Your task to perform on an android device: change alarm snooze length Image 0: 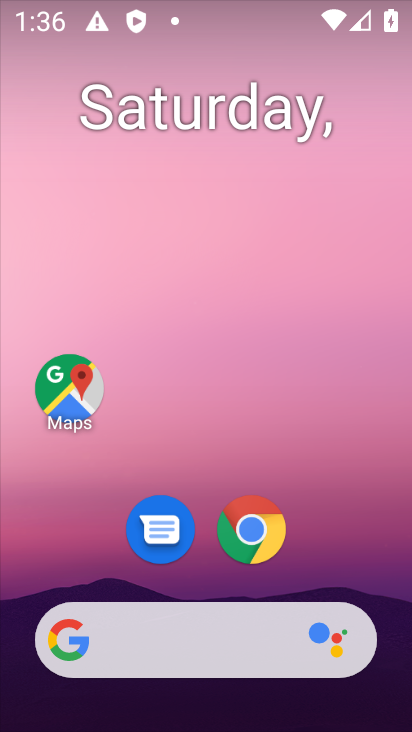
Step 0: drag from (369, 551) to (264, 118)
Your task to perform on an android device: change alarm snooze length Image 1: 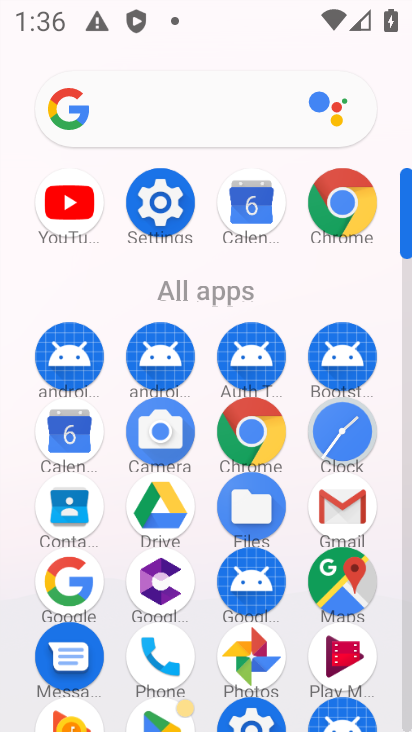
Step 1: click (346, 433)
Your task to perform on an android device: change alarm snooze length Image 2: 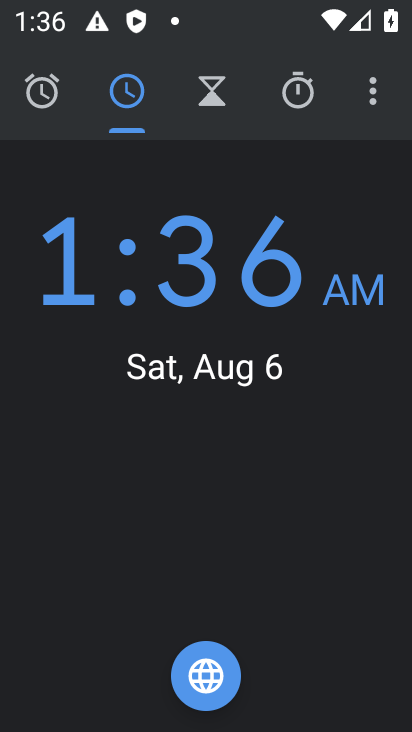
Step 2: click (384, 103)
Your task to perform on an android device: change alarm snooze length Image 3: 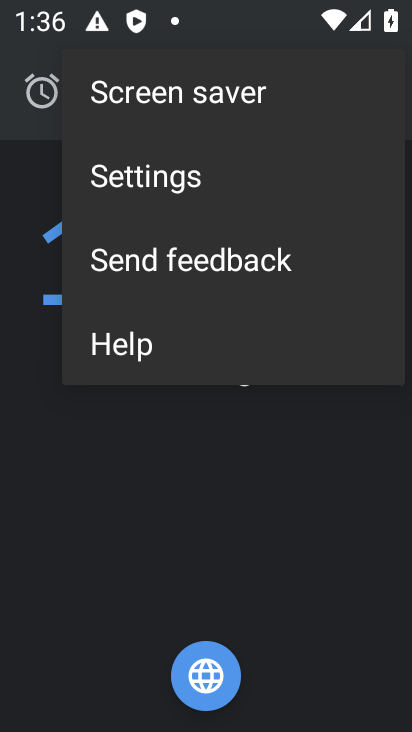
Step 3: click (276, 177)
Your task to perform on an android device: change alarm snooze length Image 4: 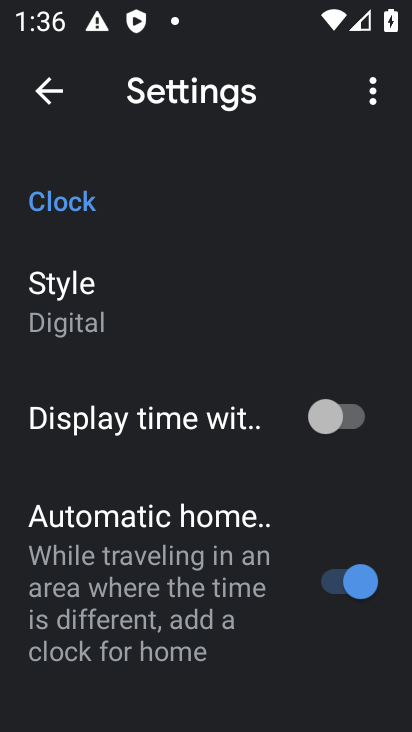
Step 4: drag from (267, 616) to (168, 100)
Your task to perform on an android device: change alarm snooze length Image 5: 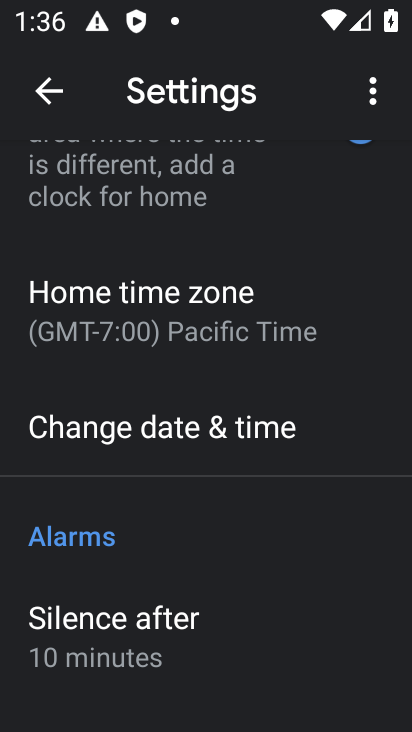
Step 5: drag from (259, 571) to (196, 213)
Your task to perform on an android device: change alarm snooze length Image 6: 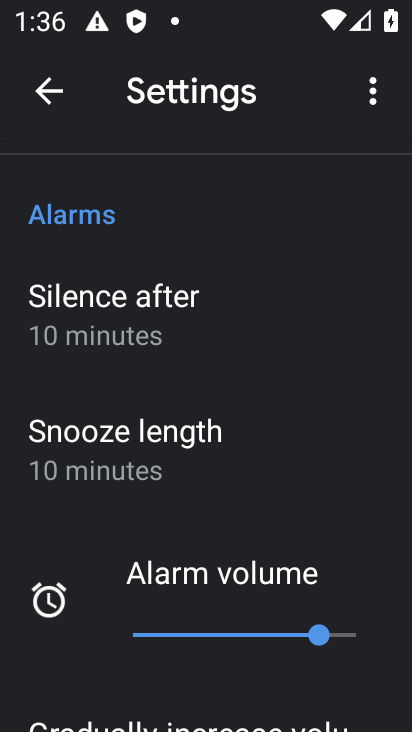
Step 6: click (245, 474)
Your task to perform on an android device: change alarm snooze length Image 7: 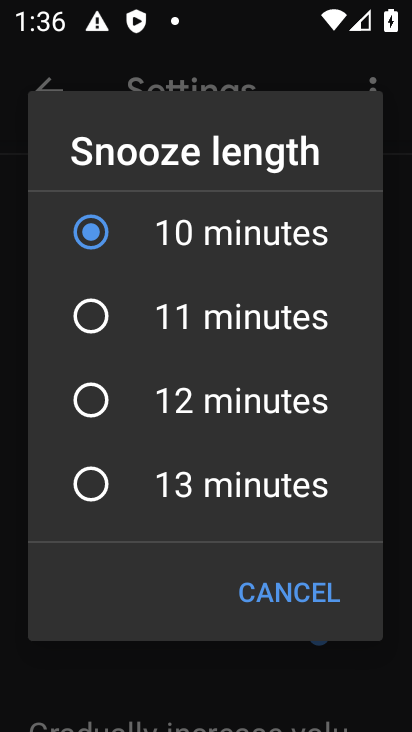
Step 7: click (256, 420)
Your task to perform on an android device: change alarm snooze length Image 8: 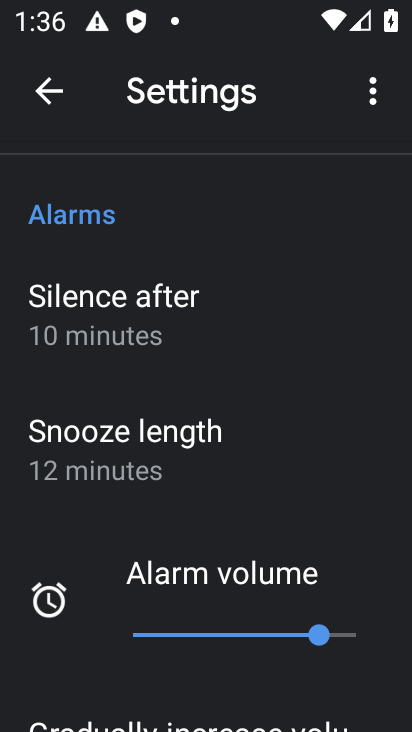
Step 8: task complete